Your task to perform on an android device: Open Google Maps and go to "Timeline" Image 0: 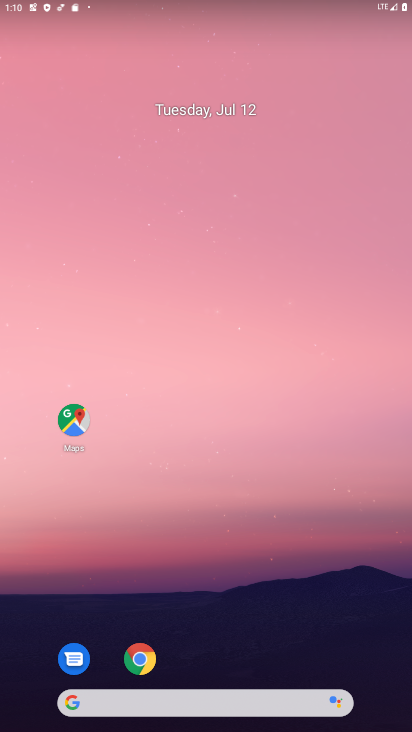
Step 0: drag from (222, 682) to (211, 256)
Your task to perform on an android device: Open Google Maps and go to "Timeline" Image 1: 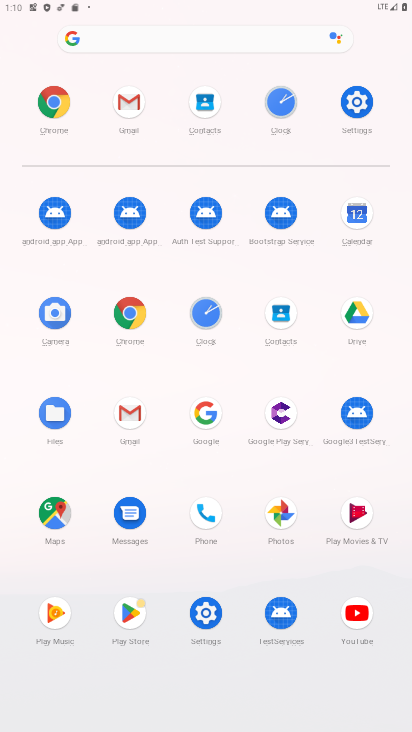
Step 1: click (54, 513)
Your task to perform on an android device: Open Google Maps and go to "Timeline" Image 2: 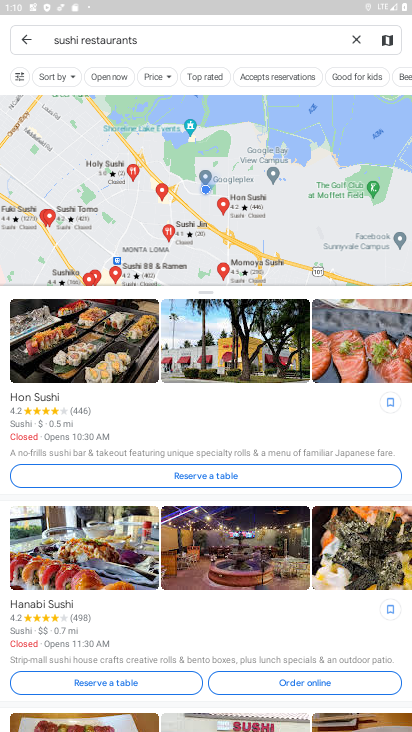
Step 2: click (25, 32)
Your task to perform on an android device: Open Google Maps and go to "Timeline" Image 3: 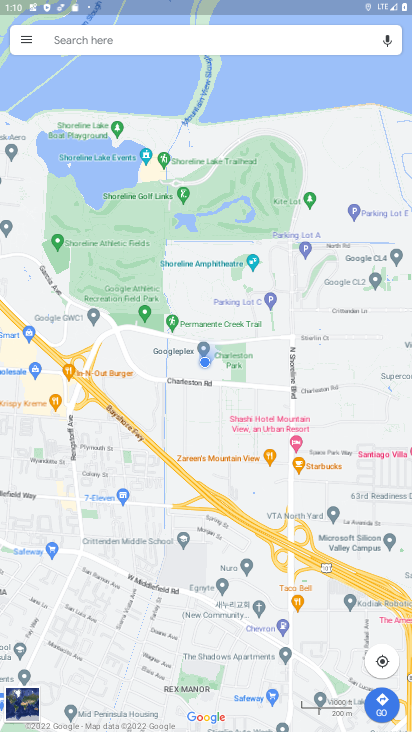
Step 3: click (25, 32)
Your task to perform on an android device: Open Google Maps and go to "Timeline" Image 4: 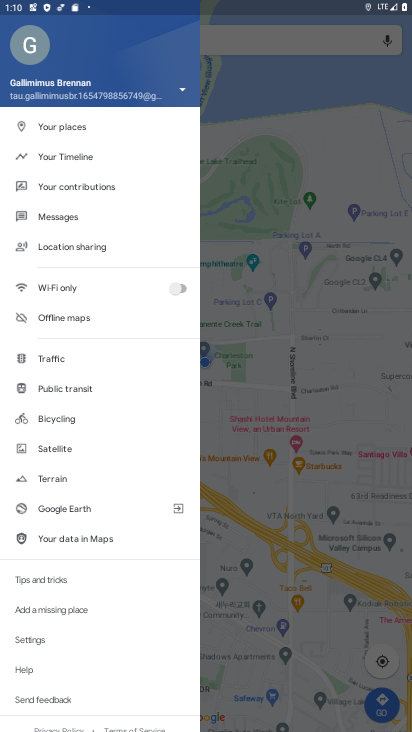
Step 4: click (67, 154)
Your task to perform on an android device: Open Google Maps and go to "Timeline" Image 5: 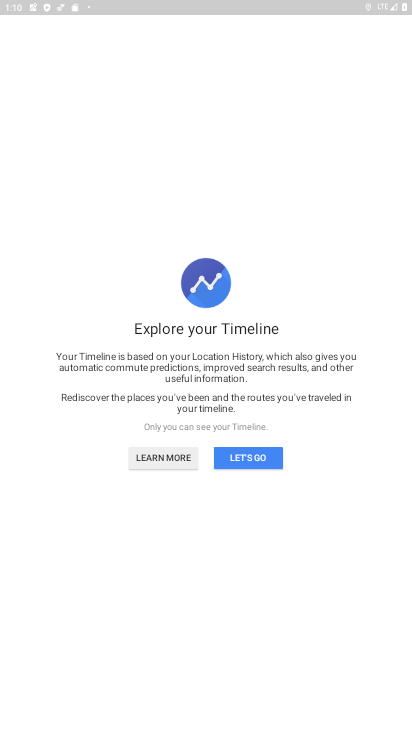
Step 5: click (233, 456)
Your task to perform on an android device: Open Google Maps and go to "Timeline" Image 6: 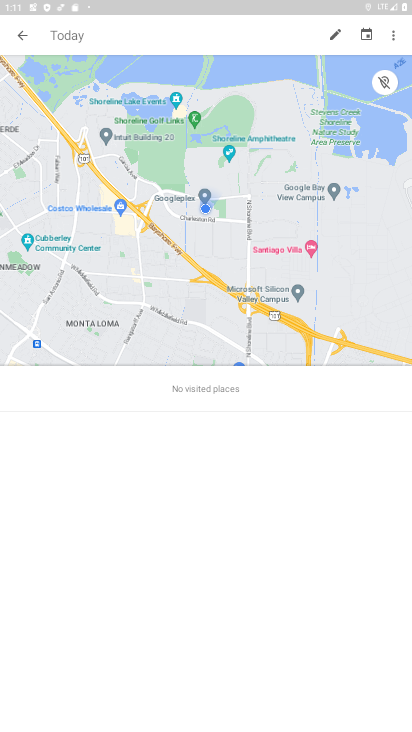
Step 6: task complete